Your task to perform on an android device: Open the phone app and click the voicemail tab. Image 0: 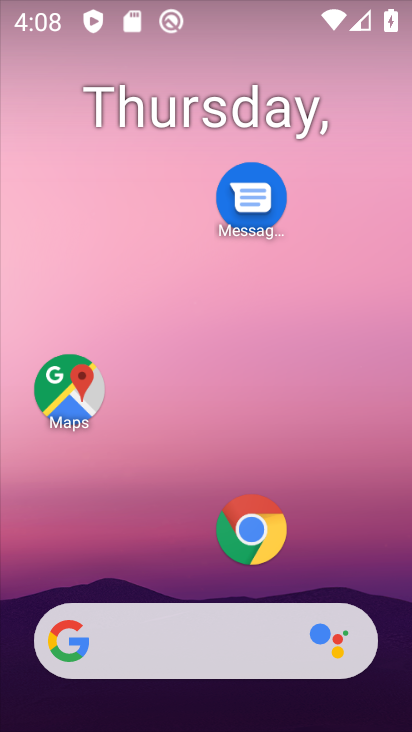
Step 0: drag from (100, 521) to (225, 0)
Your task to perform on an android device: Open the phone app and click the voicemail tab. Image 1: 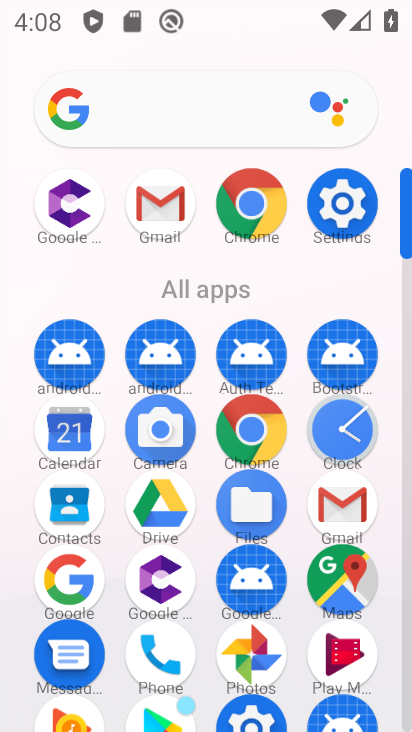
Step 1: click (163, 645)
Your task to perform on an android device: Open the phone app and click the voicemail tab. Image 2: 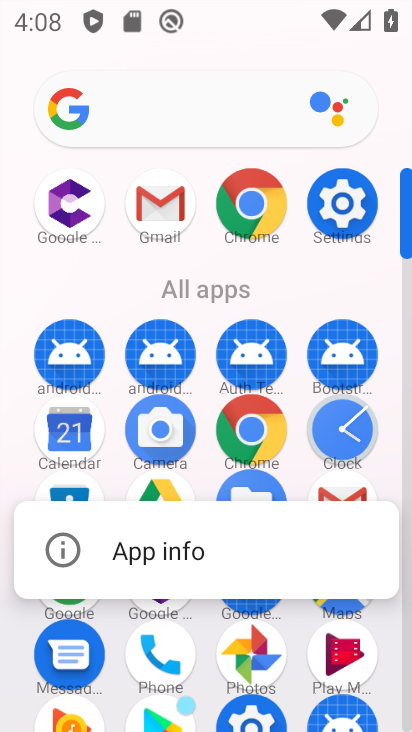
Step 2: click (166, 641)
Your task to perform on an android device: Open the phone app and click the voicemail tab. Image 3: 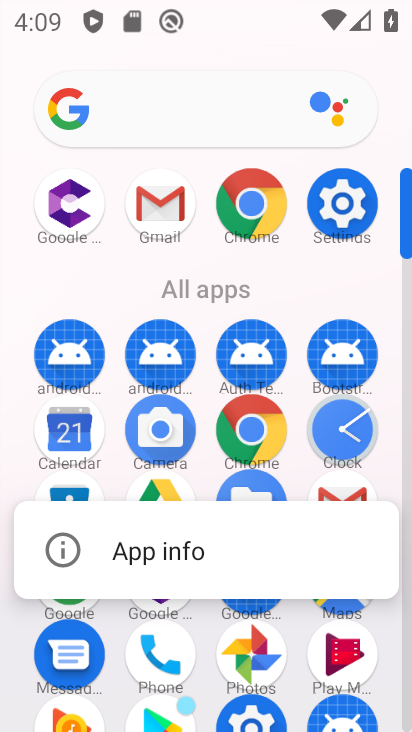
Step 3: click (158, 651)
Your task to perform on an android device: Open the phone app and click the voicemail tab. Image 4: 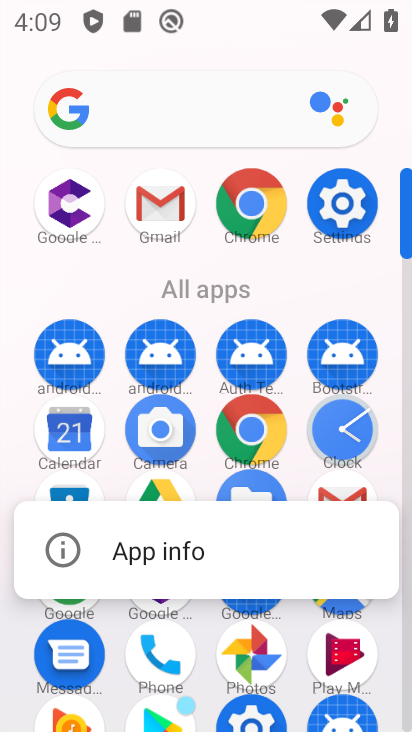
Step 4: click (151, 659)
Your task to perform on an android device: Open the phone app and click the voicemail tab. Image 5: 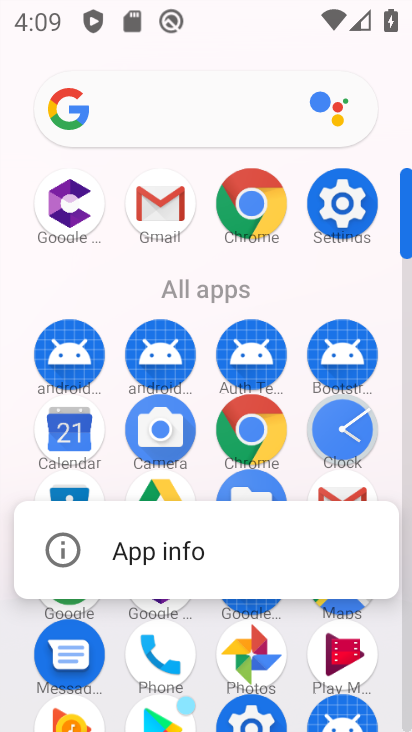
Step 5: click (163, 650)
Your task to perform on an android device: Open the phone app and click the voicemail tab. Image 6: 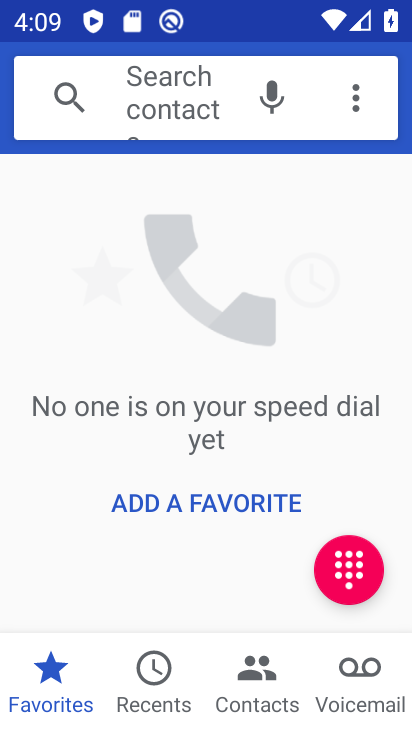
Step 6: click (371, 686)
Your task to perform on an android device: Open the phone app and click the voicemail tab. Image 7: 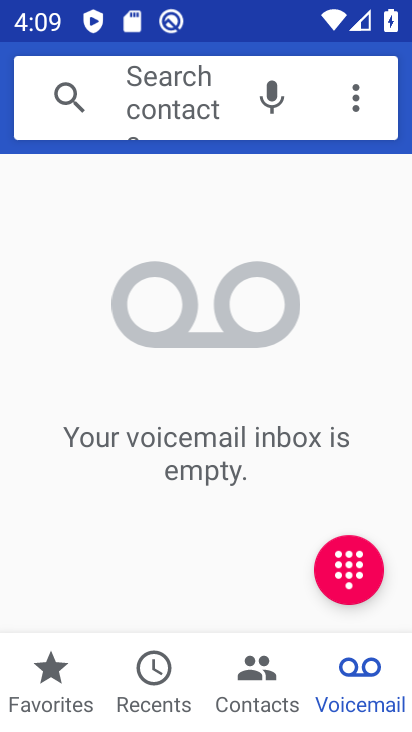
Step 7: task complete